Your task to perform on an android device: Go to display settings Image 0: 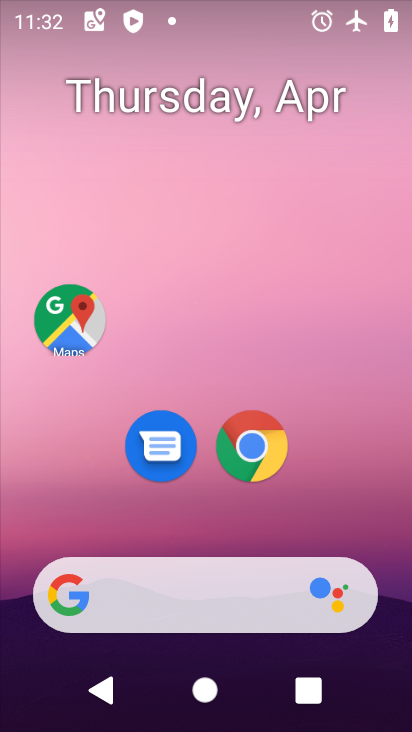
Step 0: drag from (356, 498) to (311, 219)
Your task to perform on an android device: Go to display settings Image 1: 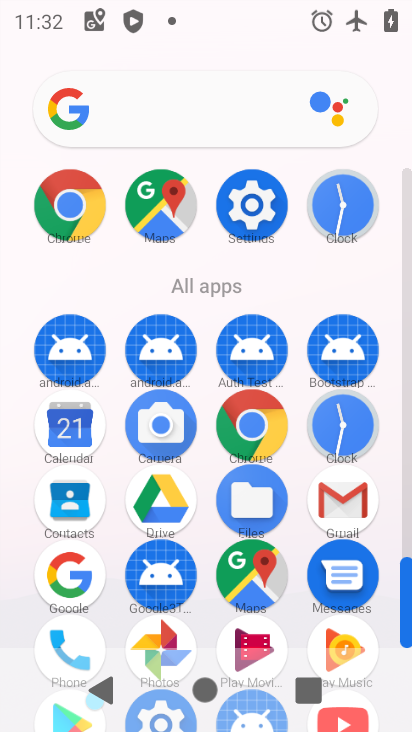
Step 1: click (249, 240)
Your task to perform on an android device: Go to display settings Image 2: 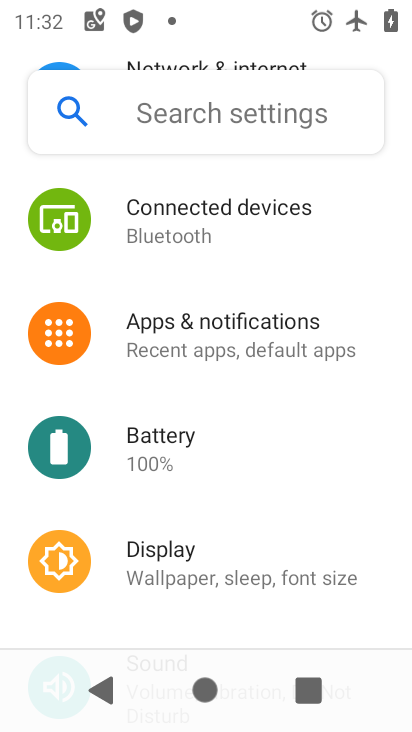
Step 2: click (242, 559)
Your task to perform on an android device: Go to display settings Image 3: 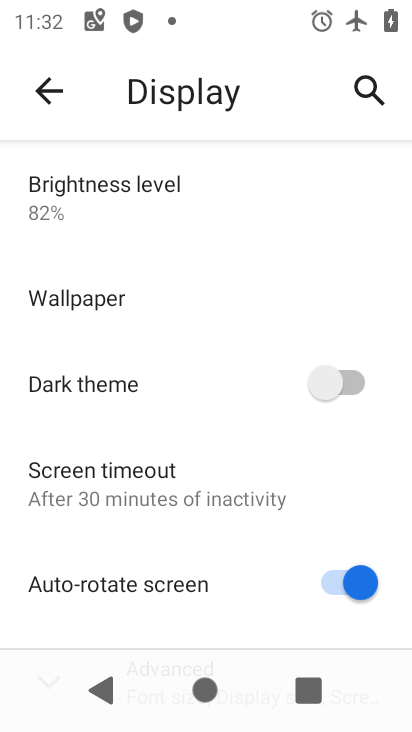
Step 3: task complete